Your task to perform on an android device: check android version Image 0: 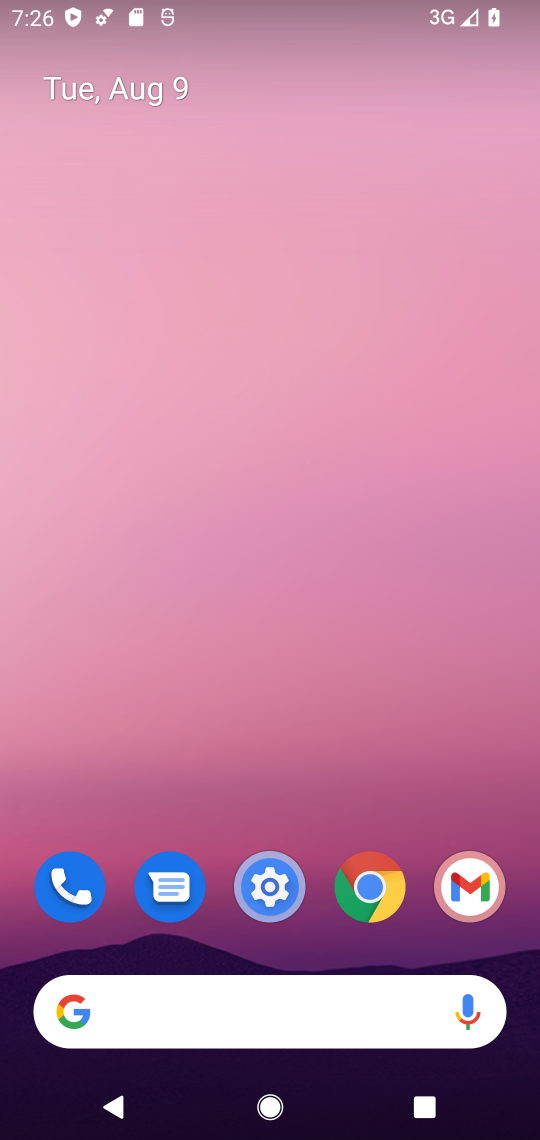
Step 0: drag from (340, 711) to (350, 0)
Your task to perform on an android device: check android version Image 1: 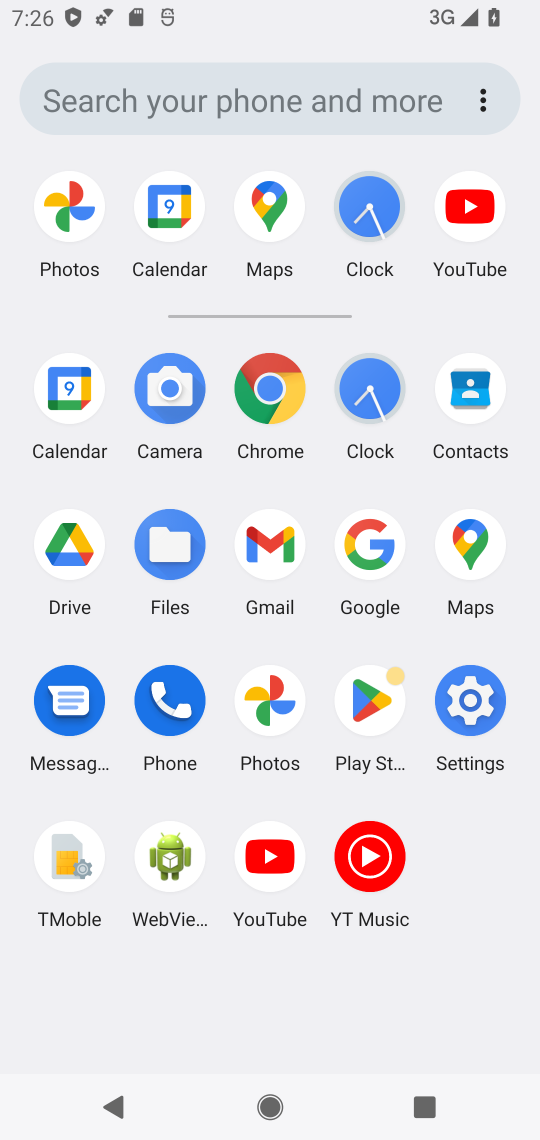
Step 1: click (471, 703)
Your task to perform on an android device: check android version Image 2: 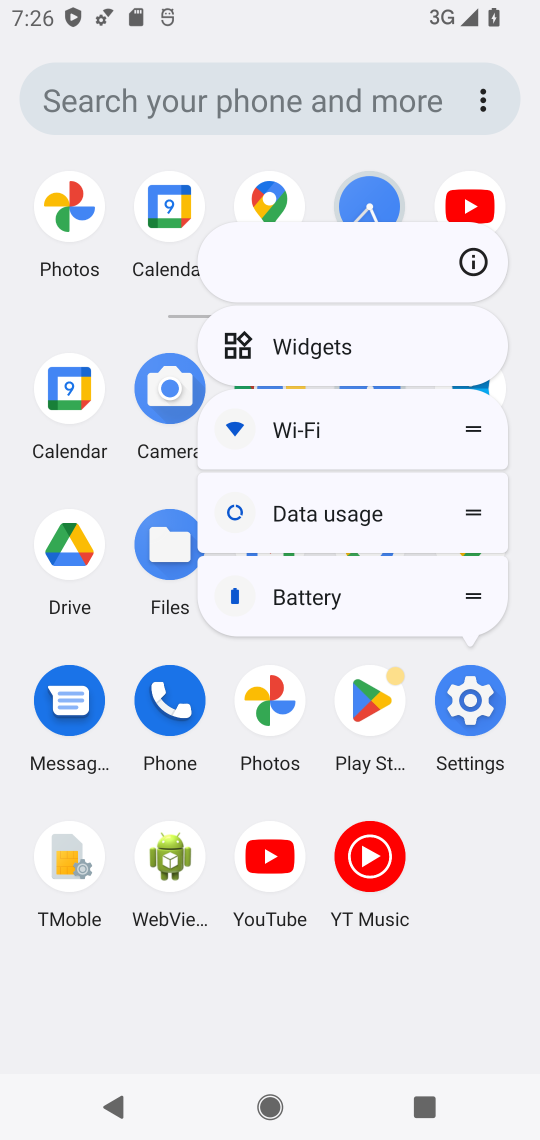
Step 2: click (471, 699)
Your task to perform on an android device: check android version Image 3: 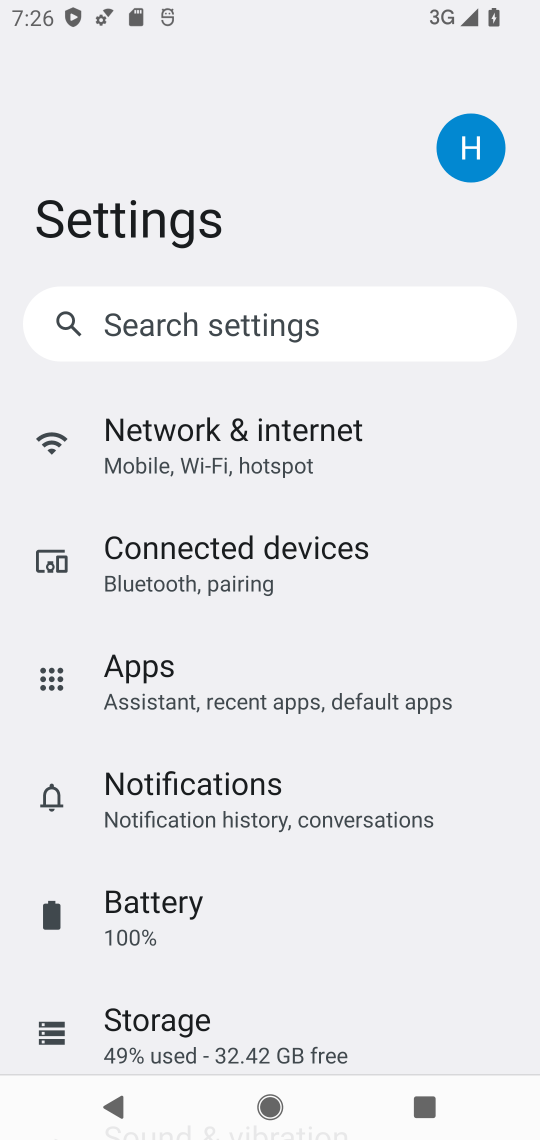
Step 3: drag from (369, 967) to (353, 169)
Your task to perform on an android device: check android version Image 4: 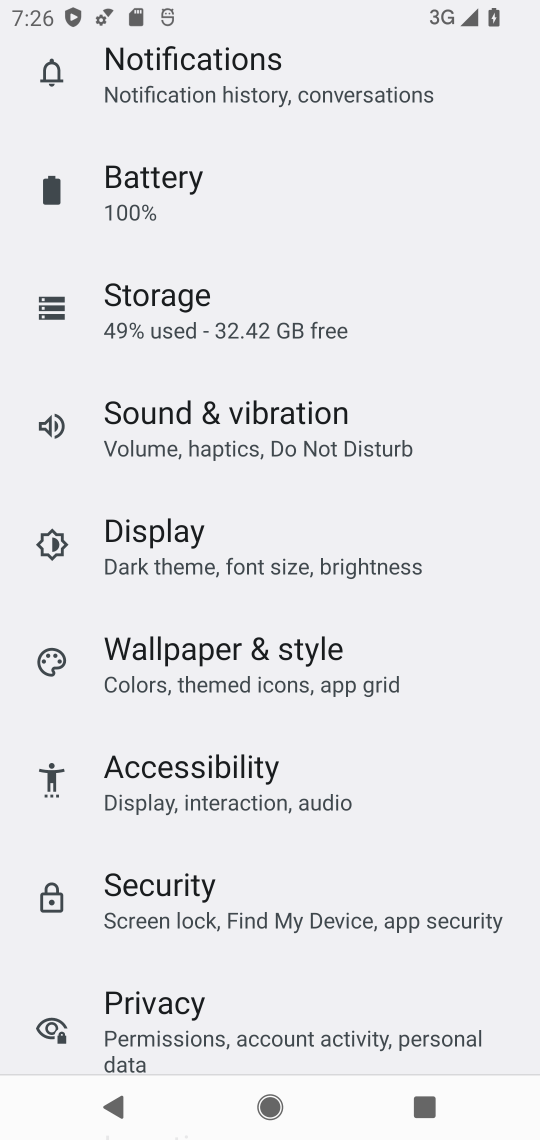
Step 4: drag from (257, 839) to (293, 92)
Your task to perform on an android device: check android version Image 5: 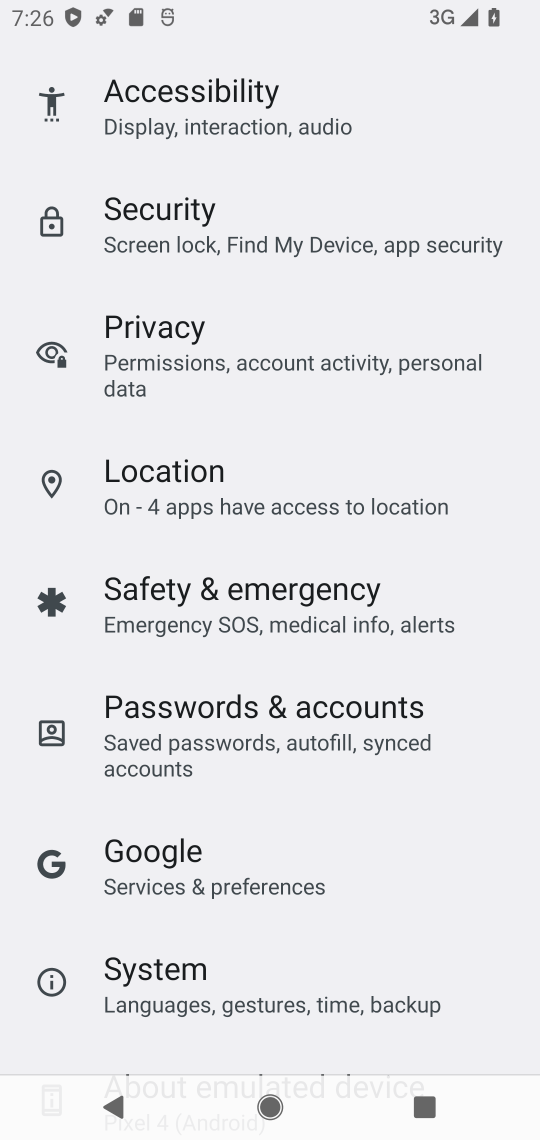
Step 5: drag from (249, 802) to (282, 124)
Your task to perform on an android device: check android version Image 6: 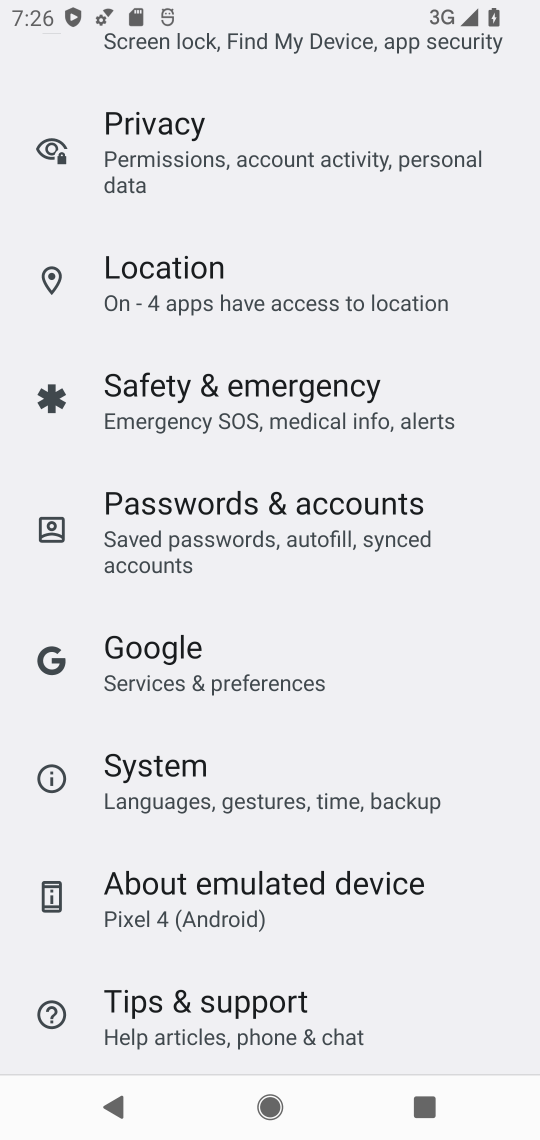
Step 6: click (250, 898)
Your task to perform on an android device: check android version Image 7: 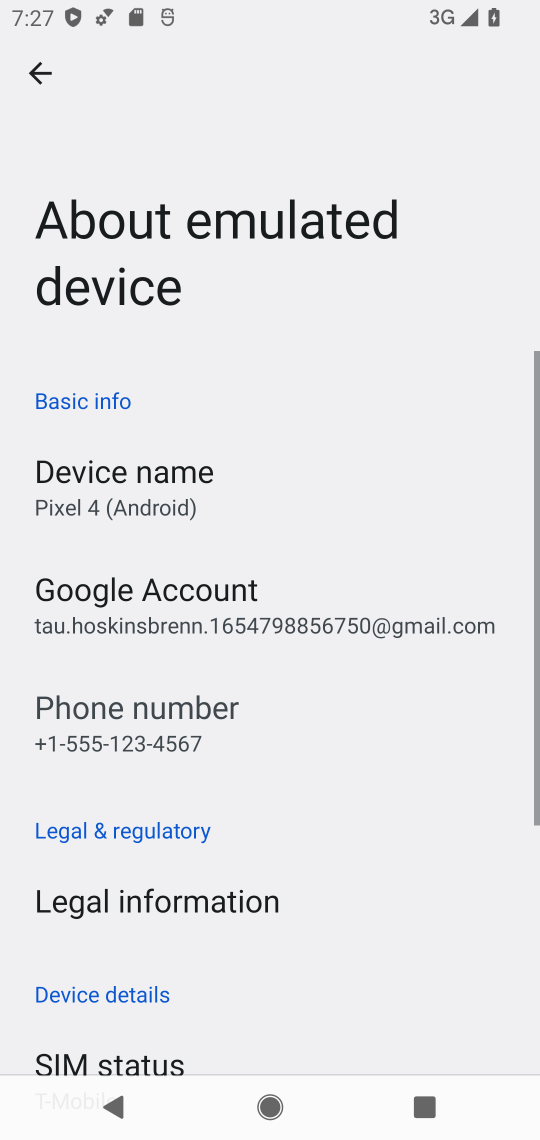
Step 7: task complete